Your task to perform on an android device: Go to eBay Image 0: 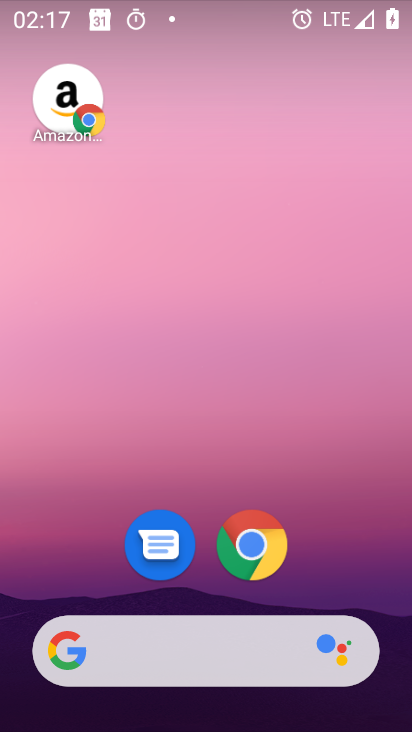
Step 0: drag from (309, 592) to (351, 52)
Your task to perform on an android device: Go to eBay Image 1: 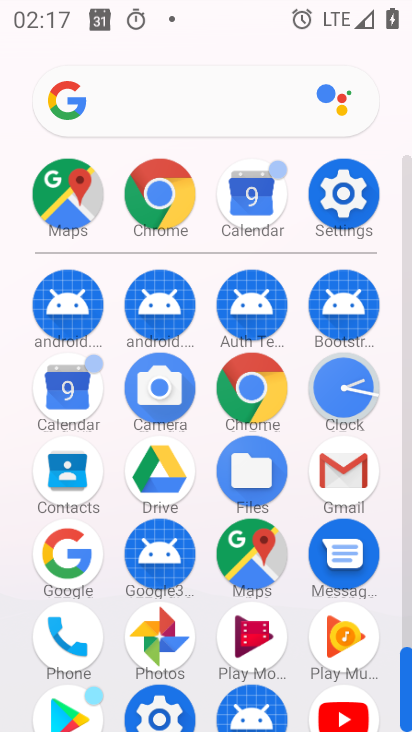
Step 1: click (260, 389)
Your task to perform on an android device: Go to eBay Image 2: 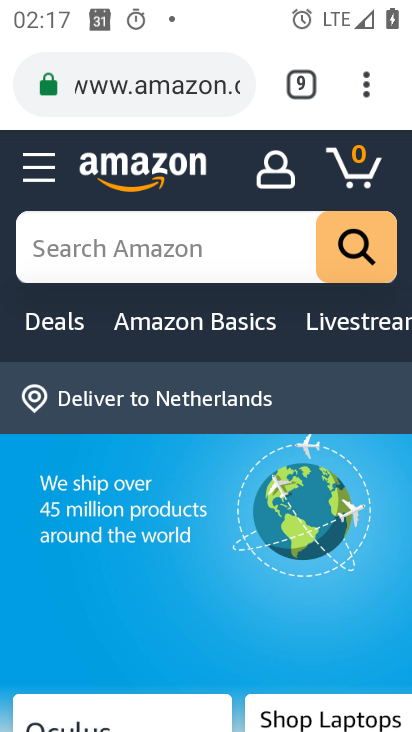
Step 2: click (183, 90)
Your task to perform on an android device: Go to eBay Image 3: 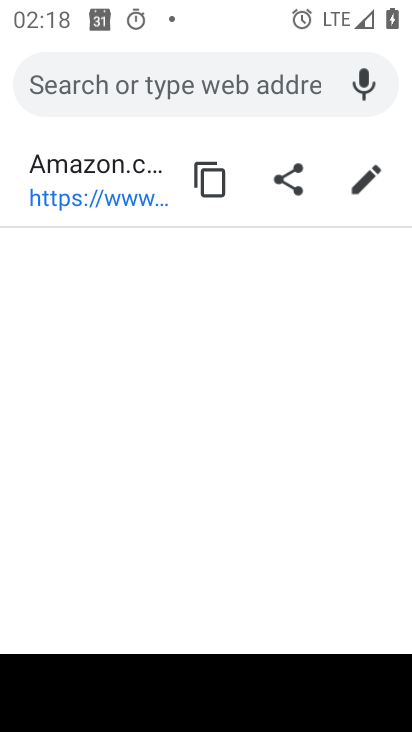
Step 3: type "ebay"
Your task to perform on an android device: Go to eBay Image 4: 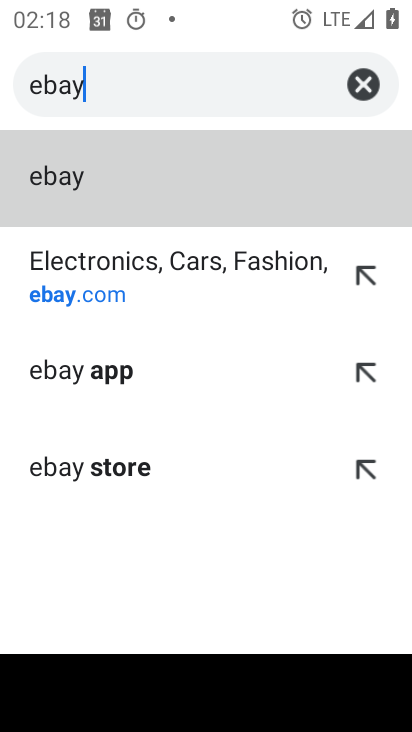
Step 4: click (157, 273)
Your task to perform on an android device: Go to eBay Image 5: 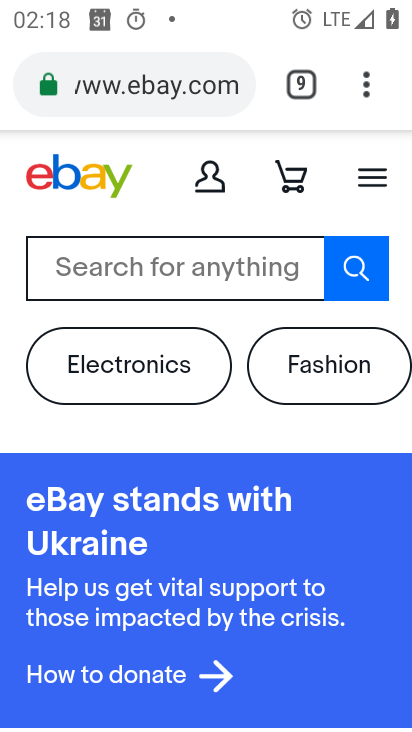
Step 5: task complete